Your task to perform on an android device: Go to CNN.com Image 0: 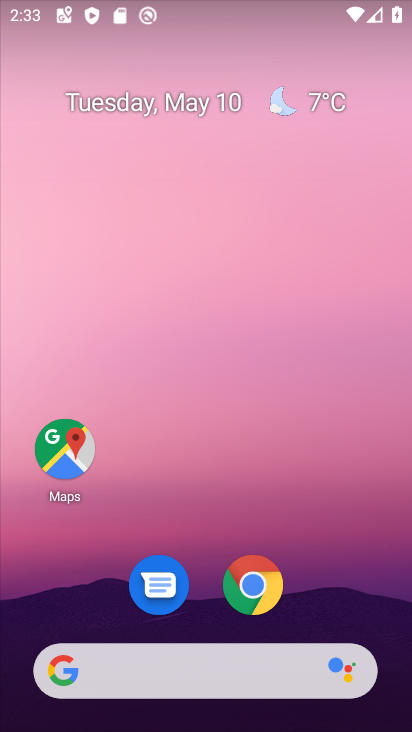
Step 0: click (260, 683)
Your task to perform on an android device: Go to CNN.com Image 1: 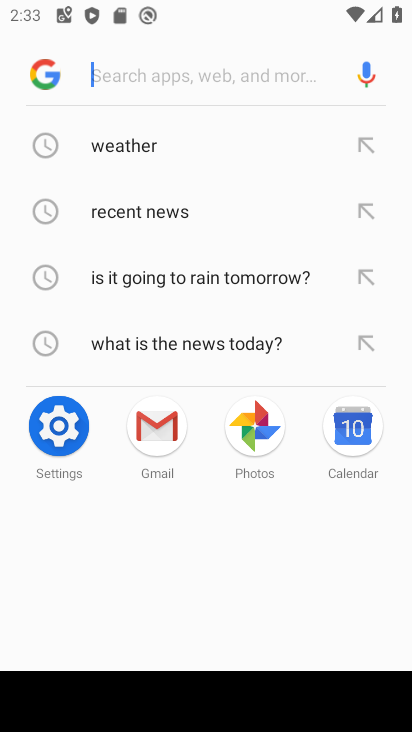
Step 1: type "cnn.com"
Your task to perform on an android device: Go to CNN.com Image 2: 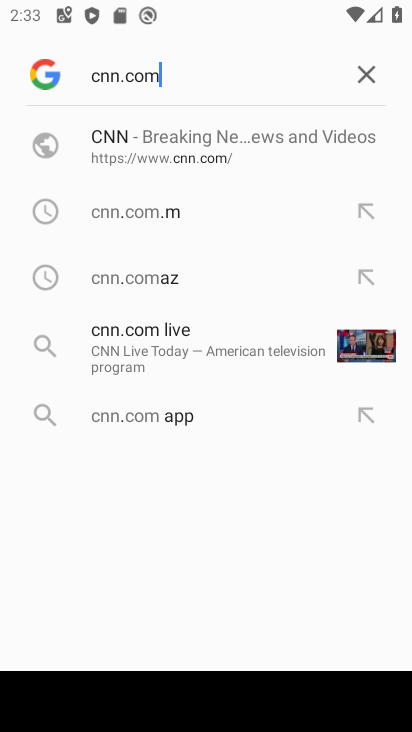
Step 2: click (111, 144)
Your task to perform on an android device: Go to CNN.com Image 3: 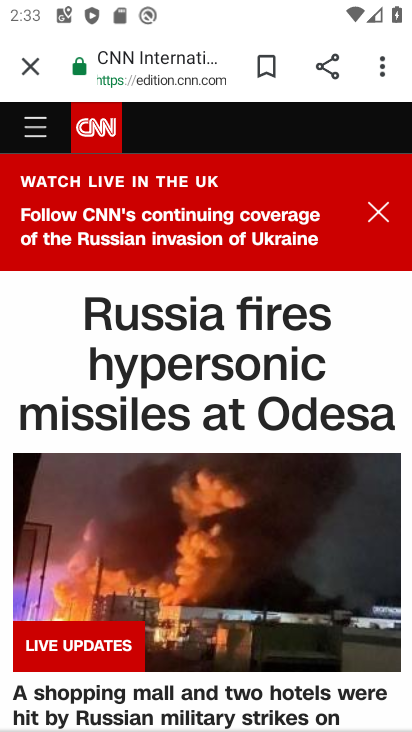
Step 3: task complete